Your task to perform on an android device: change the clock display to digital Image 0: 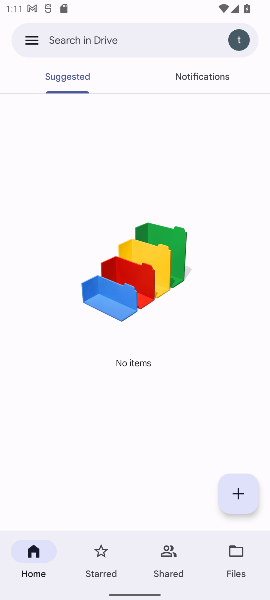
Step 0: press home button
Your task to perform on an android device: change the clock display to digital Image 1: 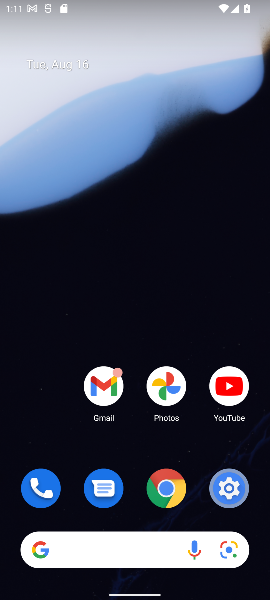
Step 1: drag from (153, 343) to (186, 160)
Your task to perform on an android device: change the clock display to digital Image 2: 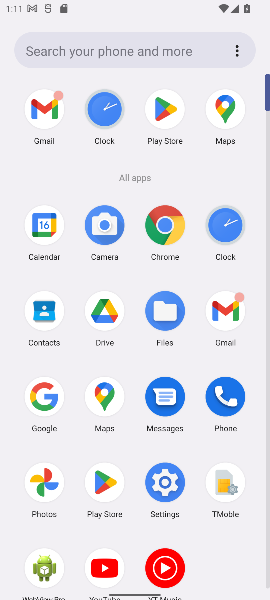
Step 2: click (224, 237)
Your task to perform on an android device: change the clock display to digital Image 3: 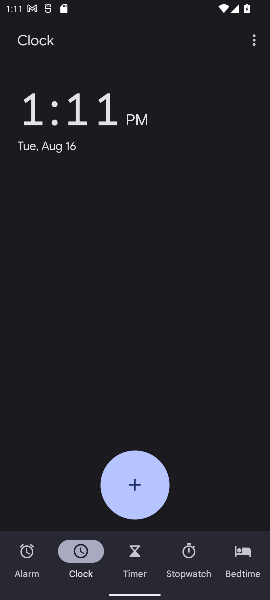
Step 3: task complete